Your task to perform on an android device: Search for Mexican restaurants on Maps Image 0: 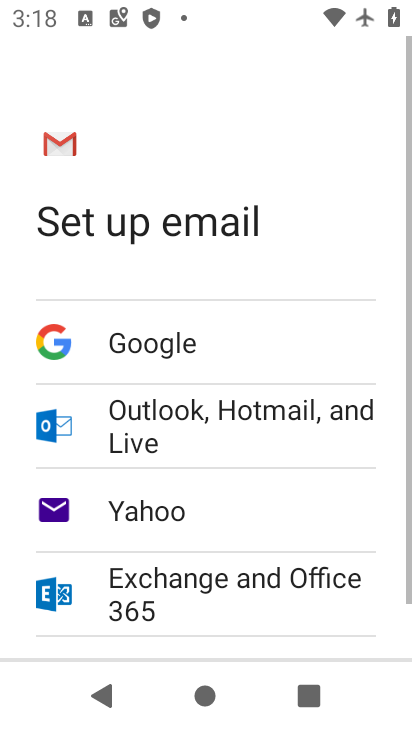
Step 0: press home button
Your task to perform on an android device: Search for Mexican restaurants on Maps Image 1: 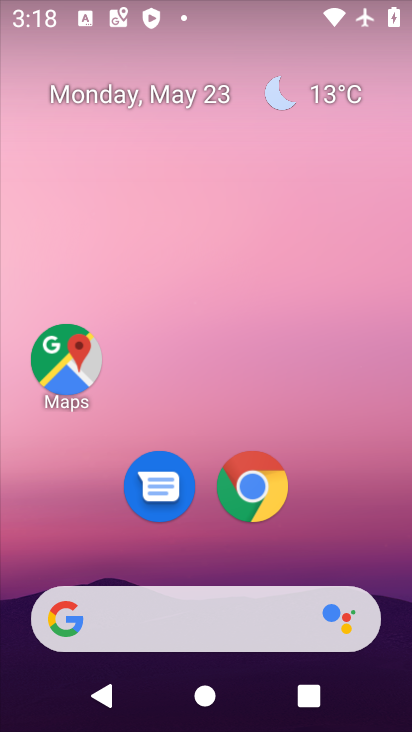
Step 1: click (63, 361)
Your task to perform on an android device: Search for Mexican restaurants on Maps Image 2: 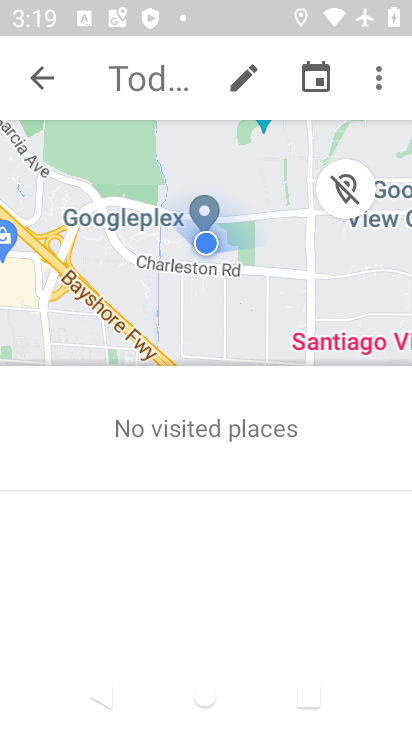
Step 2: press back button
Your task to perform on an android device: Search for Mexican restaurants on Maps Image 3: 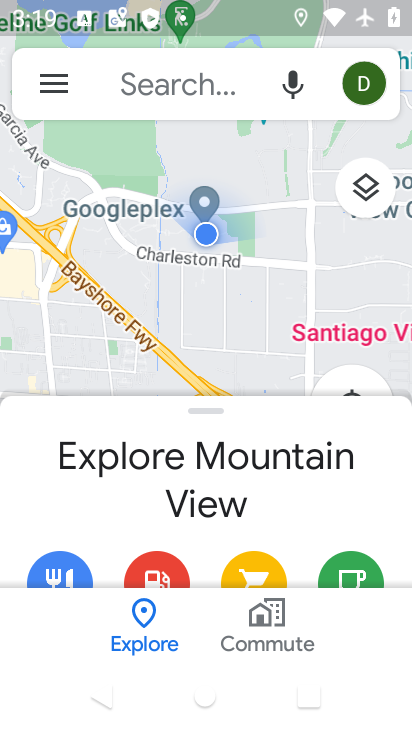
Step 3: click (137, 76)
Your task to perform on an android device: Search for Mexican restaurants on Maps Image 4: 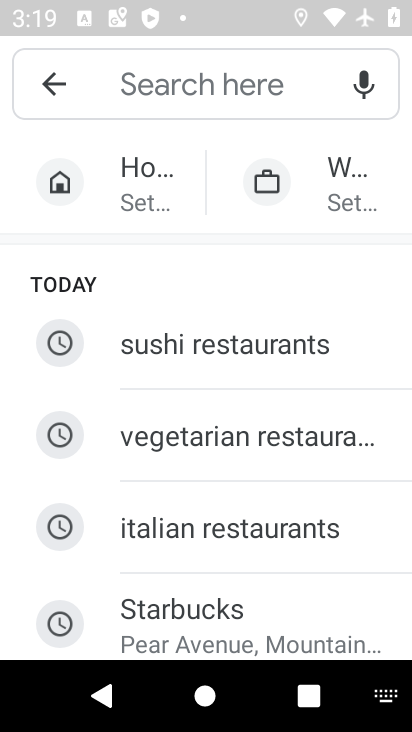
Step 4: type "mexican restaurants"
Your task to perform on an android device: Search for Mexican restaurants on Maps Image 5: 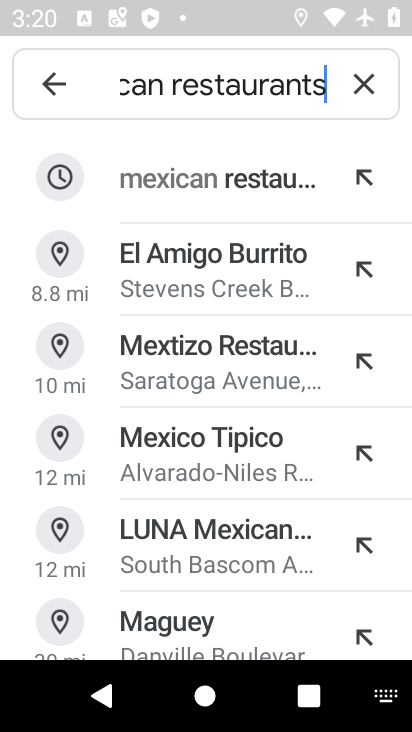
Step 5: click (186, 167)
Your task to perform on an android device: Search for Mexican restaurants on Maps Image 6: 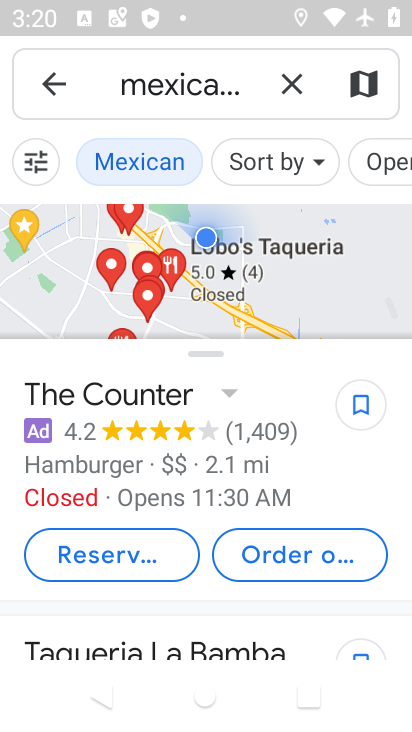
Step 6: task complete